Your task to perform on an android device: check google app version Image 0: 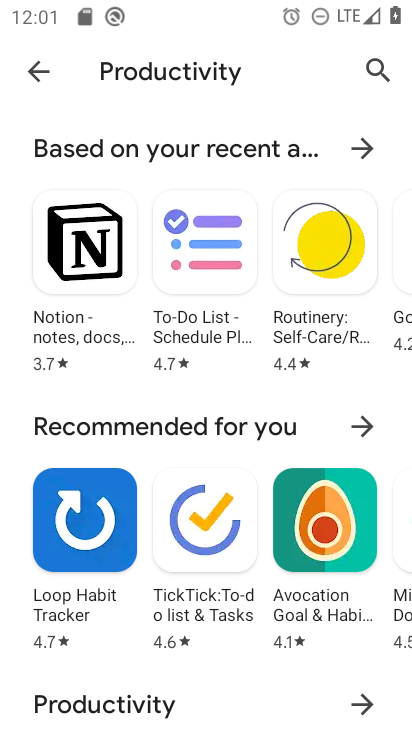
Step 0: press home button
Your task to perform on an android device: check google app version Image 1: 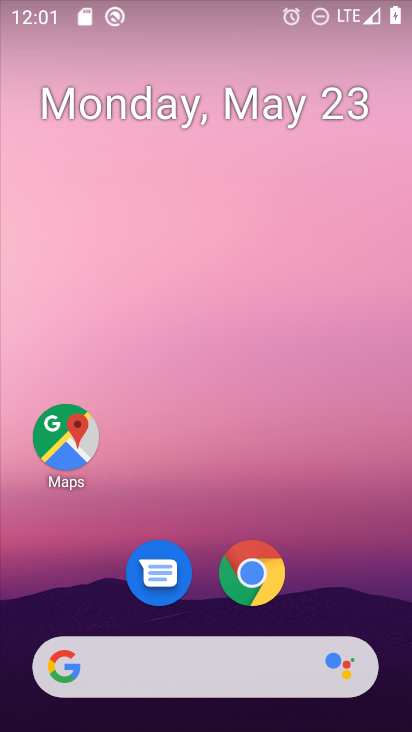
Step 1: drag from (320, 605) to (281, 150)
Your task to perform on an android device: check google app version Image 2: 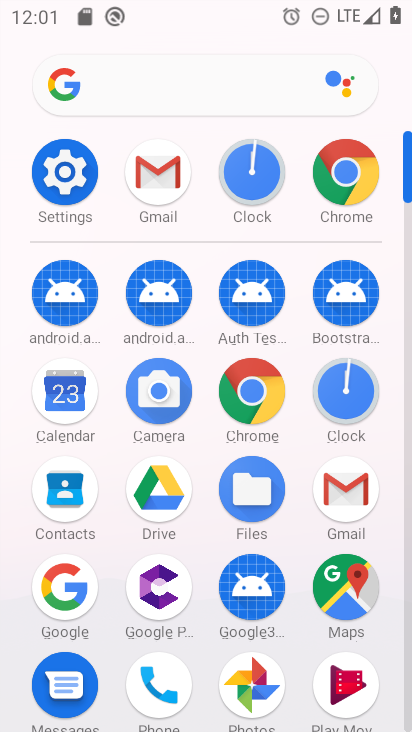
Step 2: click (61, 589)
Your task to perform on an android device: check google app version Image 3: 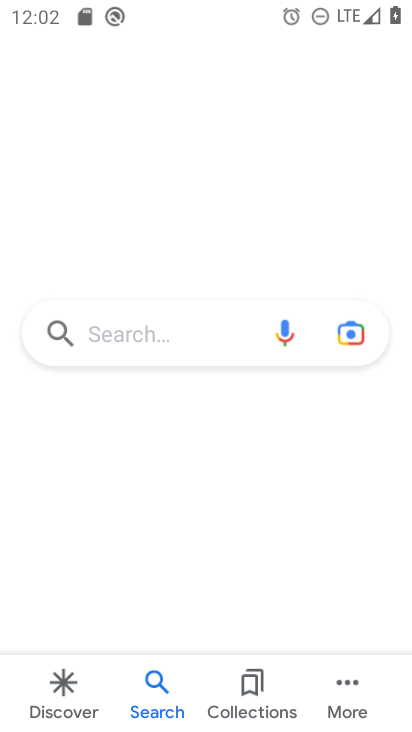
Step 3: click (342, 701)
Your task to perform on an android device: check google app version Image 4: 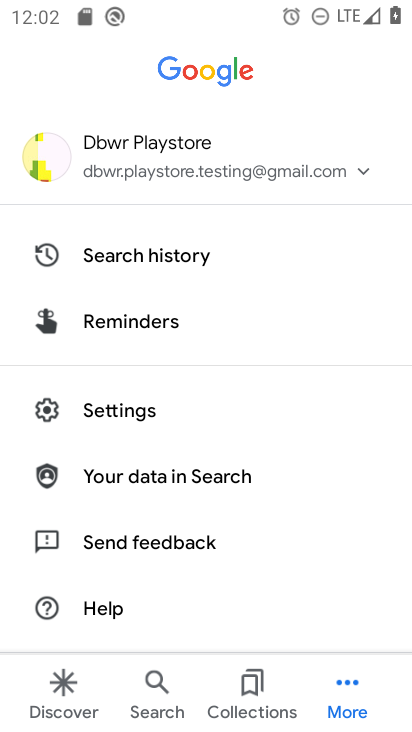
Step 4: click (131, 418)
Your task to perform on an android device: check google app version Image 5: 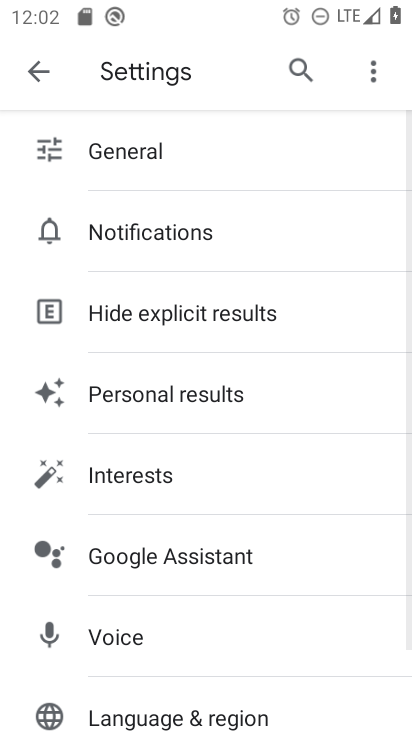
Step 5: drag from (231, 622) to (268, 283)
Your task to perform on an android device: check google app version Image 6: 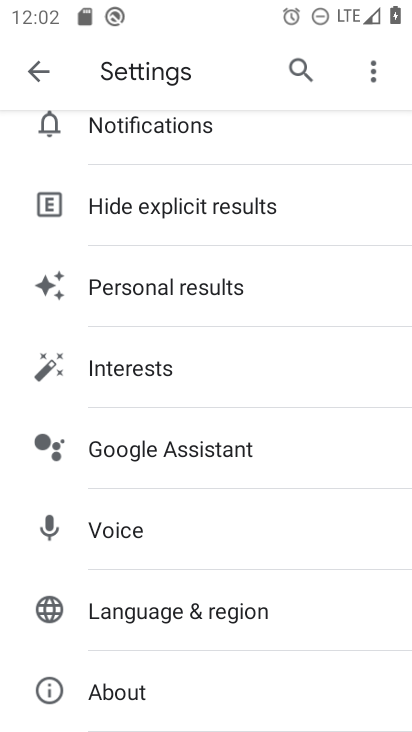
Step 6: click (118, 691)
Your task to perform on an android device: check google app version Image 7: 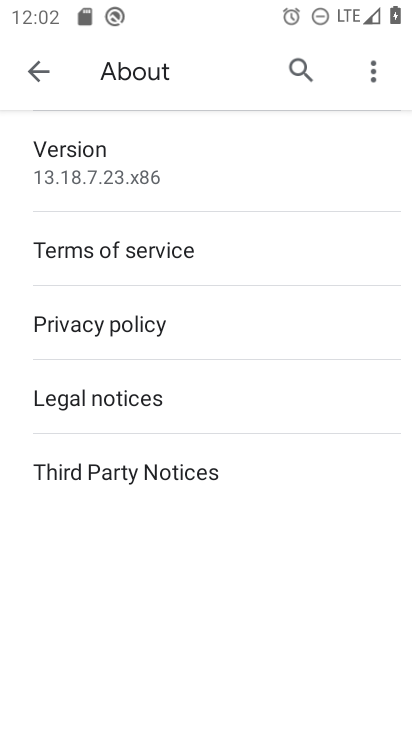
Step 7: click (133, 177)
Your task to perform on an android device: check google app version Image 8: 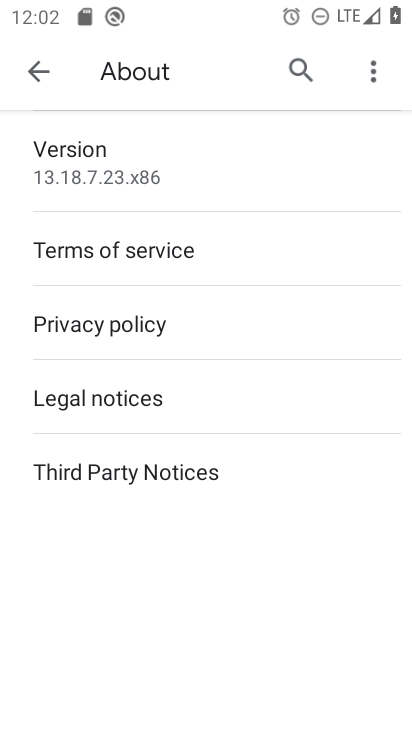
Step 8: click (126, 184)
Your task to perform on an android device: check google app version Image 9: 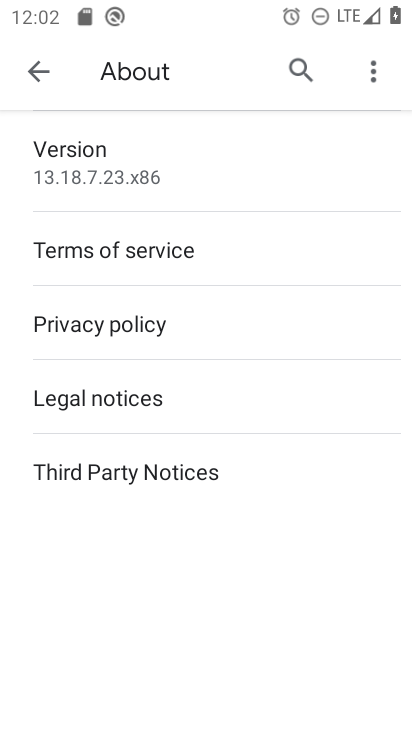
Step 9: task complete